Your task to perform on an android device: allow cookies in the chrome app Image 0: 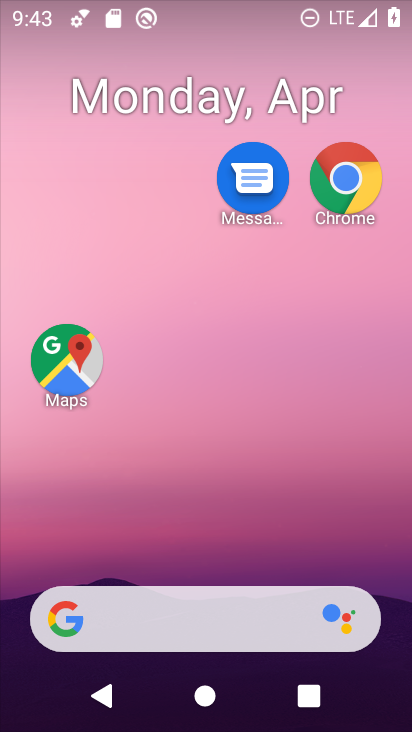
Step 0: drag from (274, 625) to (320, 115)
Your task to perform on an android device: allow cookies in the chrome app Image 1: 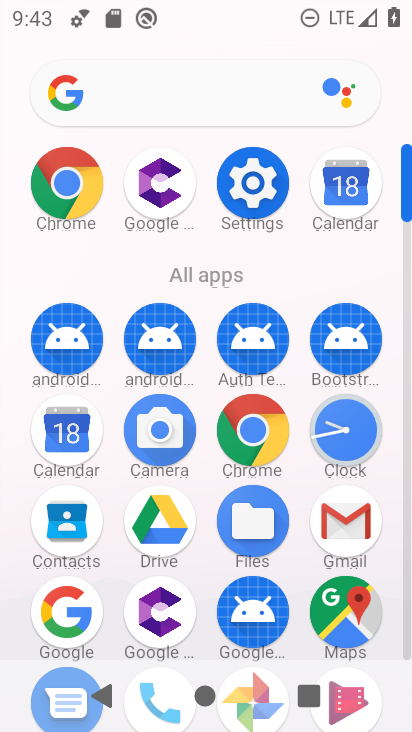
Step 1: click (80, 191)
Your task to perform on an android device: allow cookies in the chrome app Image 2: 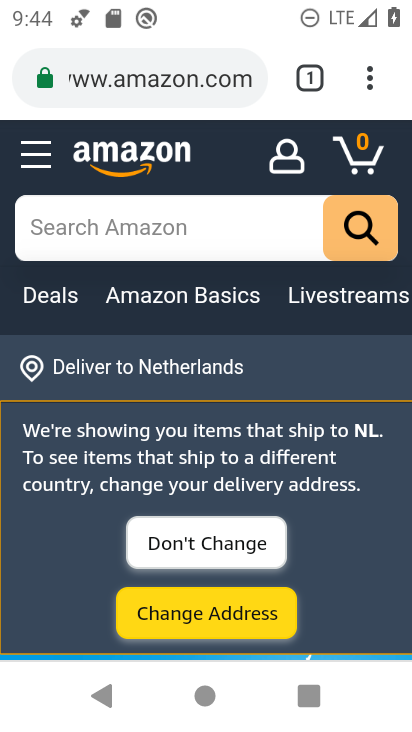
Step 2: click (368, 91)
Your task to perform on an android device: allow cookies in the chrome app Image 3: 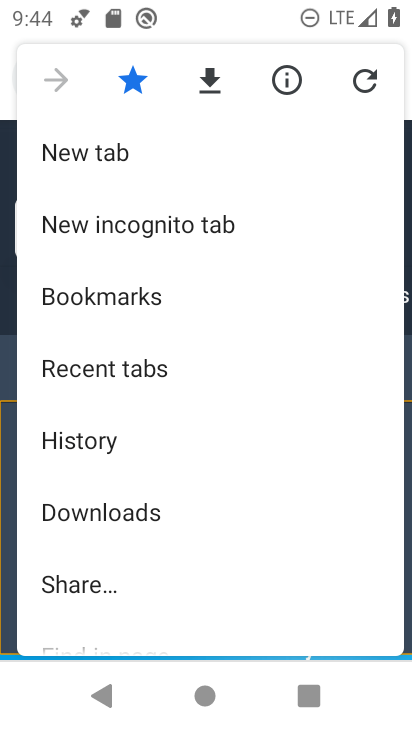
Step 3: drag from (182, 542) to (221, 223)
Your task to perform on an android device: allow cookies in the chrome app Image 4: 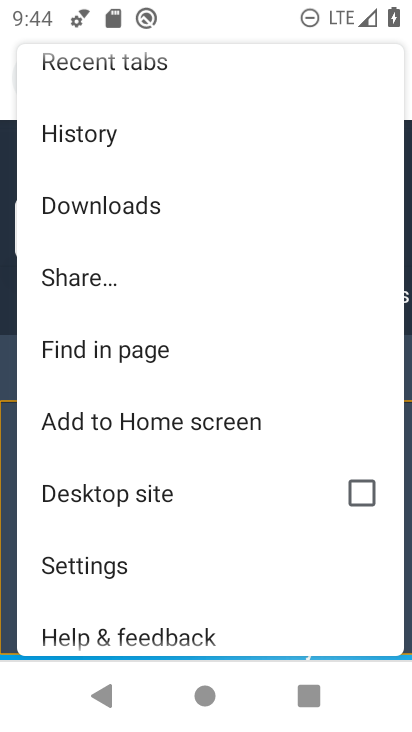
Step 4: click (120, 560)
Your task to perform on an android device: allow cookies in the chrome app Image 5: 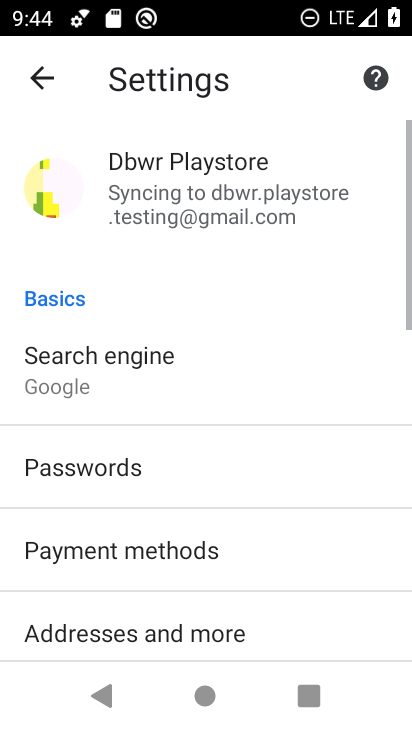
Step 5: drag from (158, 599) to (228, 252)
Your task to perform on an android device: allow cookies in the chrome app Image 6: 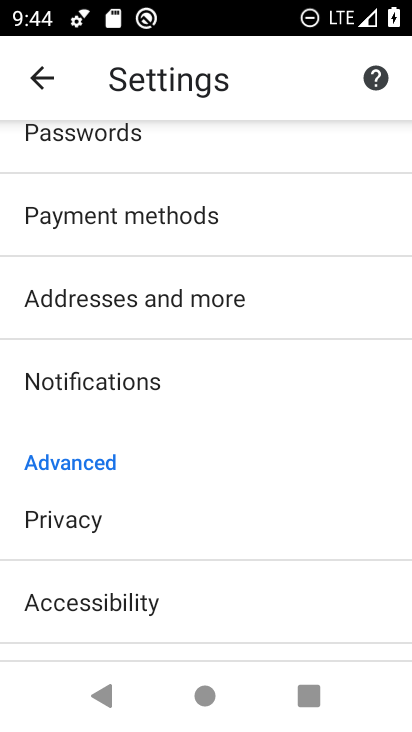
Step 6: drag from (202, 606) to (237, 263)
Your task to perform on an android device: allow cookies in the chrome app Image 7: 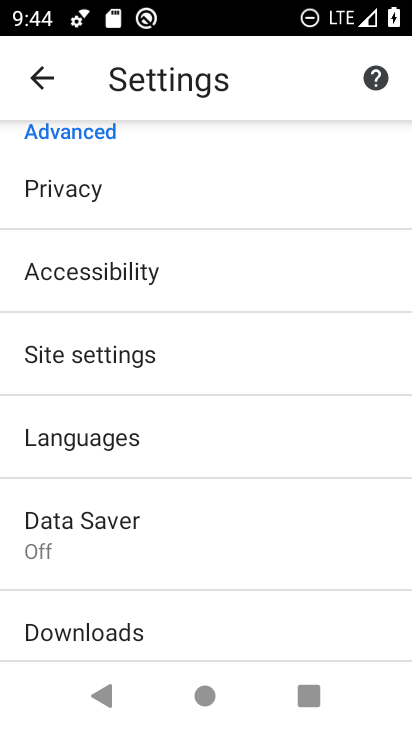
Step 7: click (127, 353)
Your task to perform on an android device: allow cookies in the chrome app Image 8: 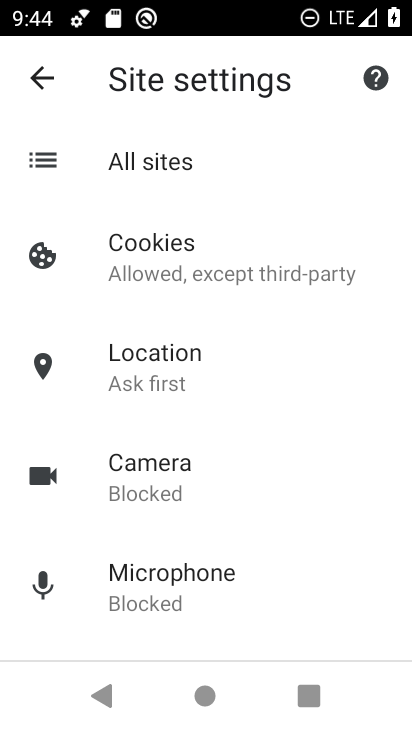
Step 8: click (247, 280)
Your task to perform on an android device: allow cookies in the chrome app Image 9: 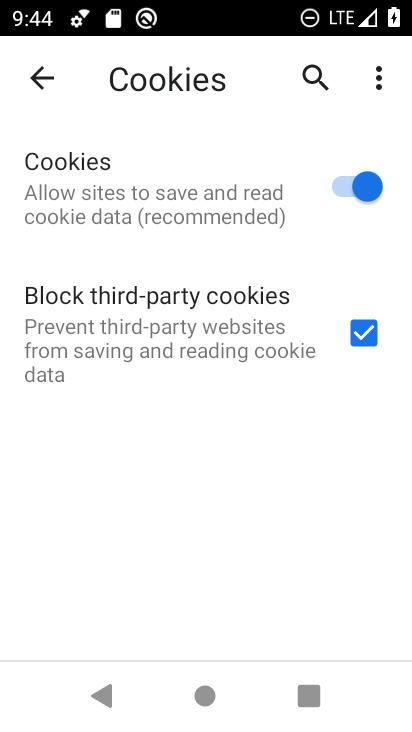
Step 9: task complete